Your task to perform on an android device: Go to CNN.com Image 0: 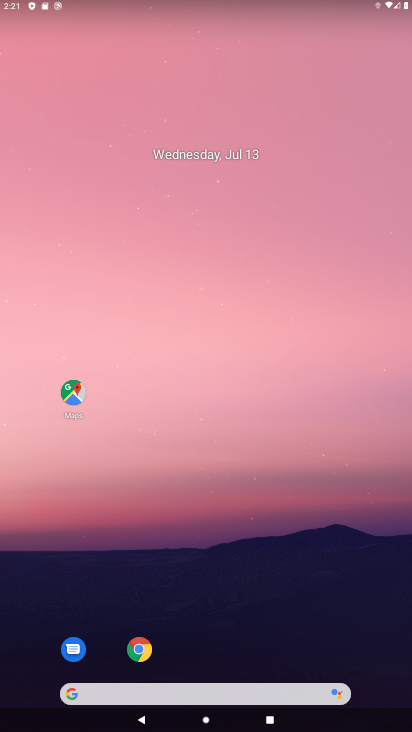
Step 0: click (210, 692)
Your task to perform on an android device: Go to CNN.com Image 1: 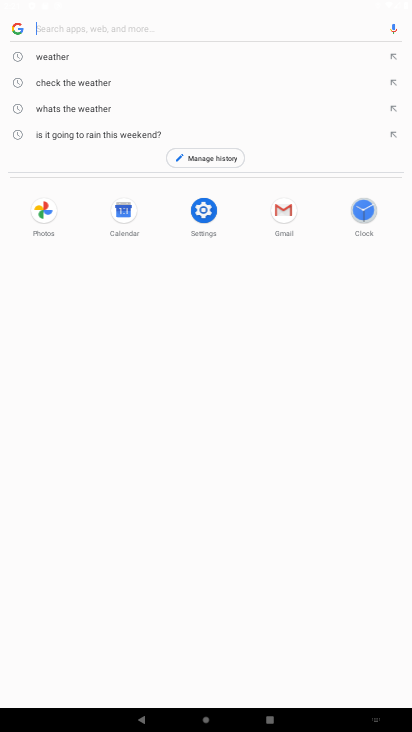
Step 1: type "cnn.com"
Your task to perform on an android device: Go to CNN.com Image 2: 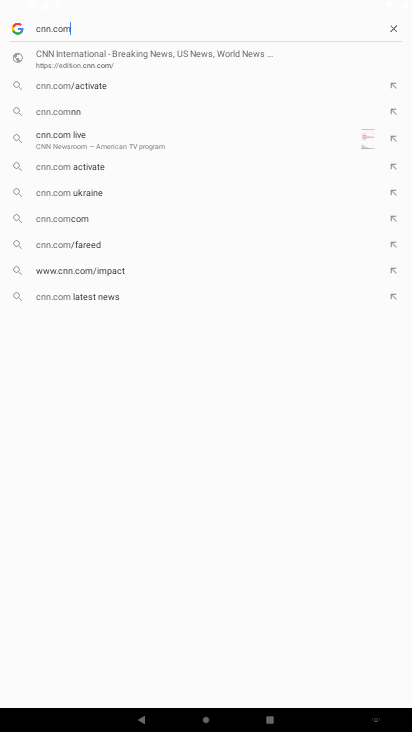
Step 2: click (103, 46)
Your task to perform on an android device: Go to CNN.com Image 3: 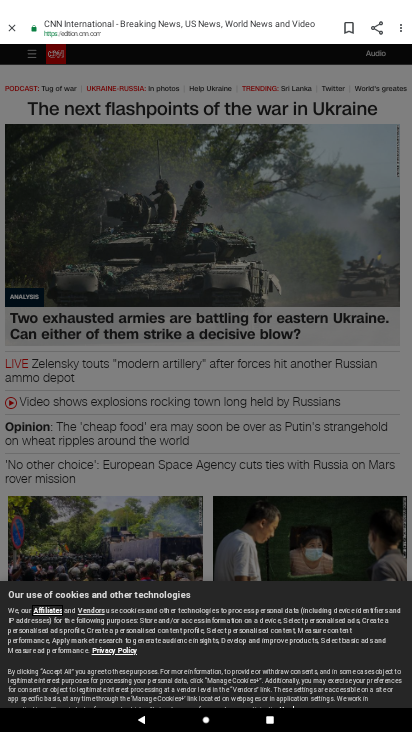
Step 3: task complete